Your task to perform on an android device: Search for vegetarian restaurants on Maps Image 0: 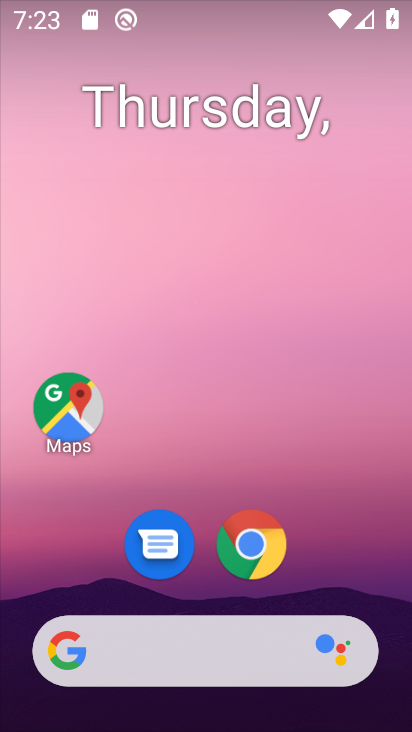
Step 0: drag from (302, 691) to (300, 158)
Your task to perform on an android device: Search for vegetarian restaurants on Maps Image 1: 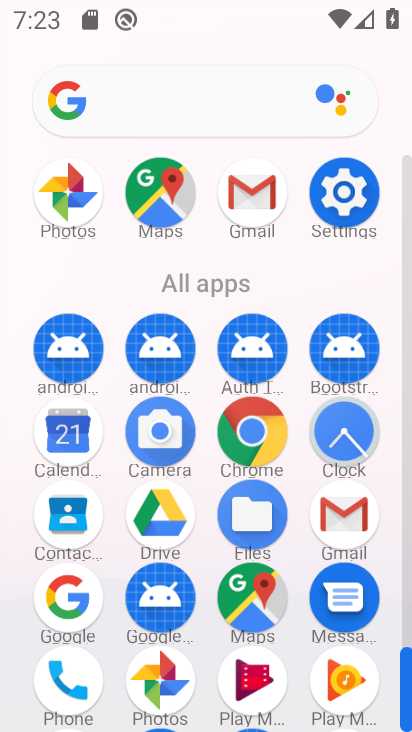
Step 1: click (159, 208)
Your task to perform on an android device: Search for vegetarian restaurants on Maps Image 2: 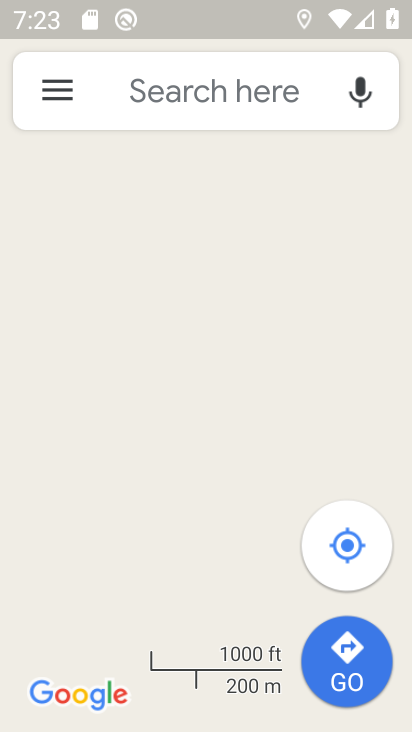
Step 2: click (192, 100)
Your task to perform on an android device: Search for vegetarian restaurants on Maps Image 3: 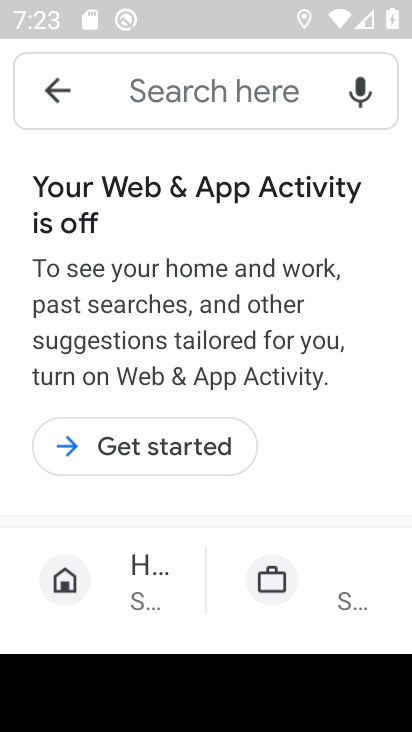
Step 3: click (386, 706)
Your task to perform on an android device: Search for vegetarian restaurants on Maps Image 4: 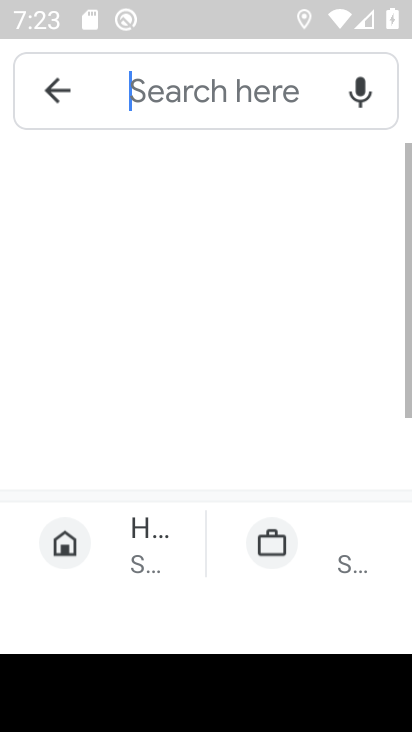
Step 4: drag from (377, 625) to (357, 339)
Your task to perform on an android device: Search for vegetarian restaurants on Maps Image 5: 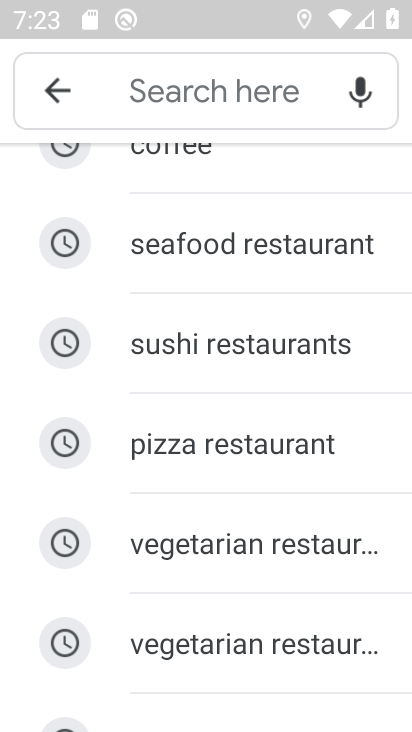
Step 5: click (212, 537)
Your task to perform on an android device: Search for vegetarian restaurants on Maps Image 6: 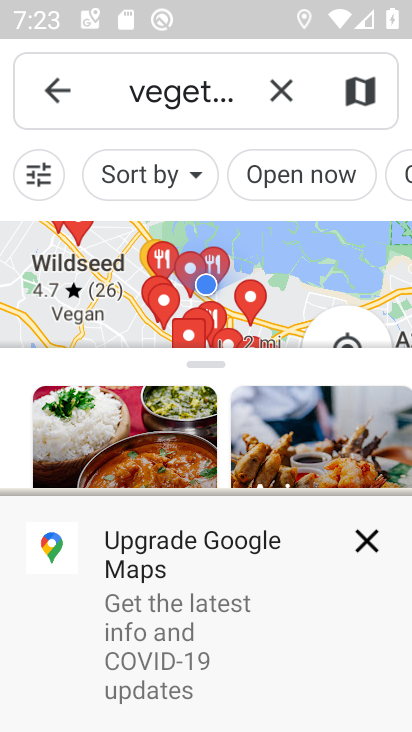
Step 6: click (369, 537)
Your task to perform on an android device: Search for vegetarian restaurants on Maps Image 7: 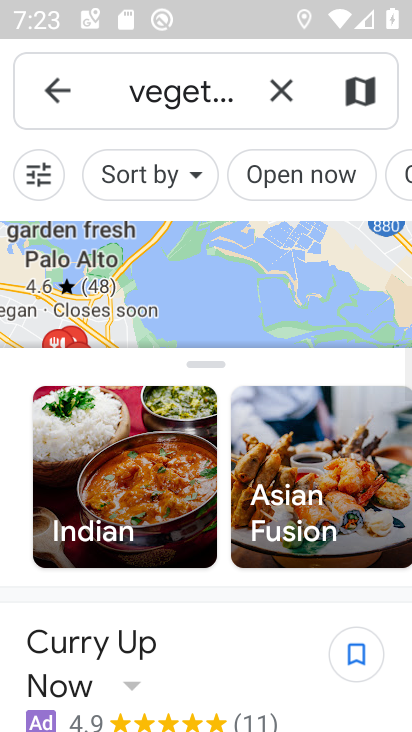
Step 7: click (269, 271)
Your task to perform on an android device: Search for vegetarian restaurants on Maps Image 8: 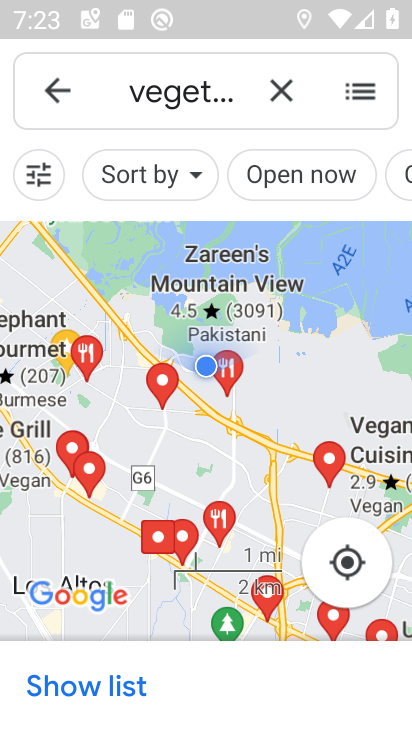
Step 8: task complete